Your task to perform on an android device: change notification settings in the gmail app Image 0: 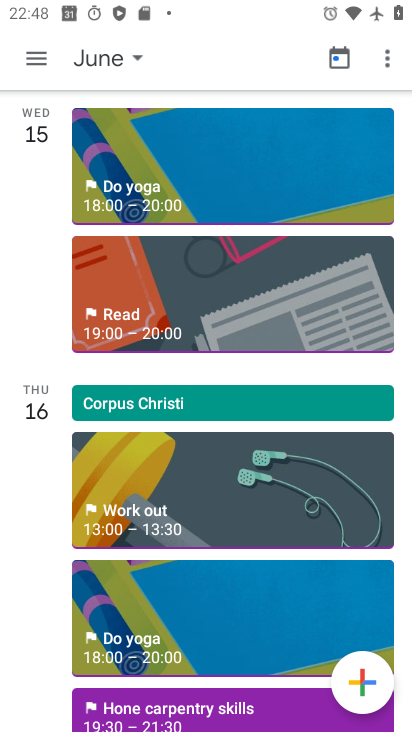
Step 0: press home button
Your task to perform on an android device: change notification settings in the gmail app Image 1: 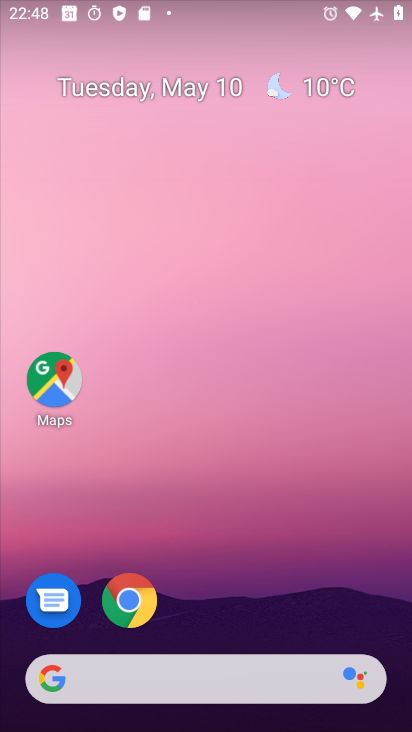
Step 1: drag from (313, 379) to (118, 24)
Your task to perform on an android device: change notification settings in the gmail app Image 2: 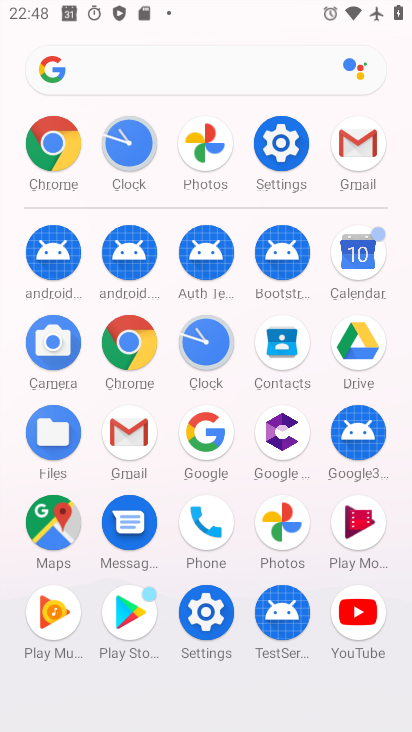
Step 2: drag from (254, 316) to (233, 99)
Your task to perform on an android device: change notification settings in the gmail app Image 3: 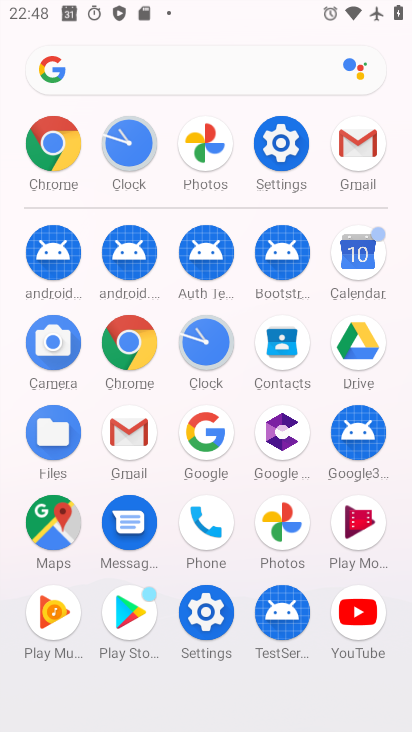
Step 3: click (354, 166)
Your task to perform on an android device: change notification settings in the gmail app Image 4: 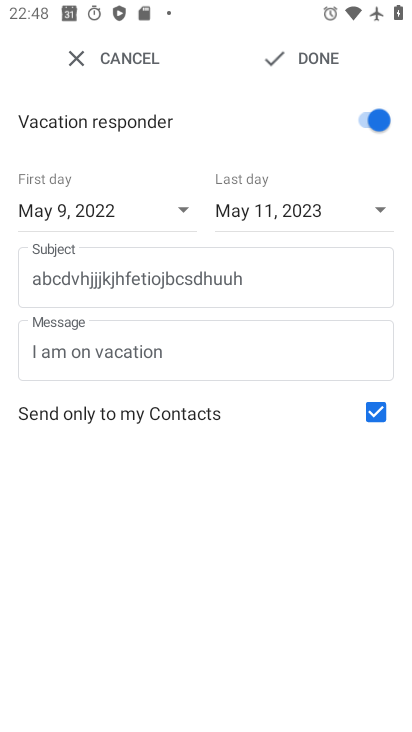
Step 4: click (67, 53)
Your task to perform on an android device: change notification settings in the gmail app Image 5: 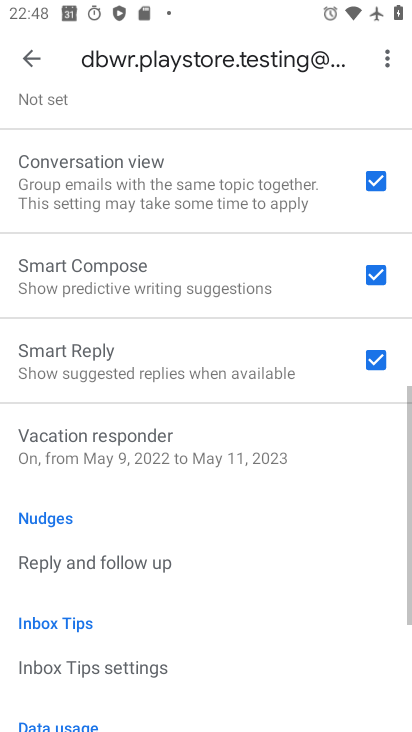
Step 5: drag from (81, 182) to (90, 676)
Your task to perform on an android device: change notification settings in the gmail app Image 6: 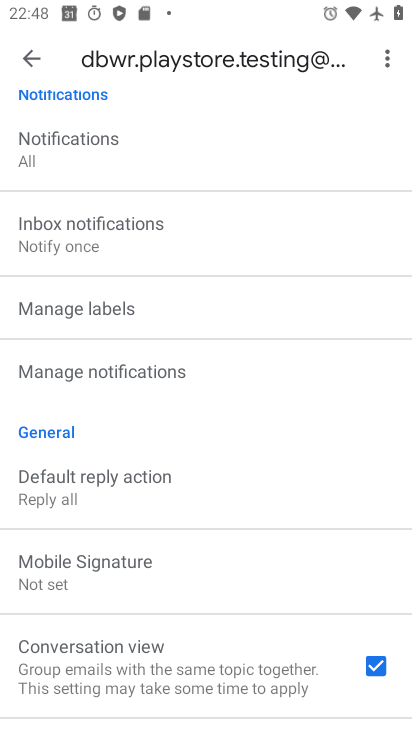
Step 6: click (116, 160)
Your task to perform on an android device: change notification settings in the gmail app Image 7: 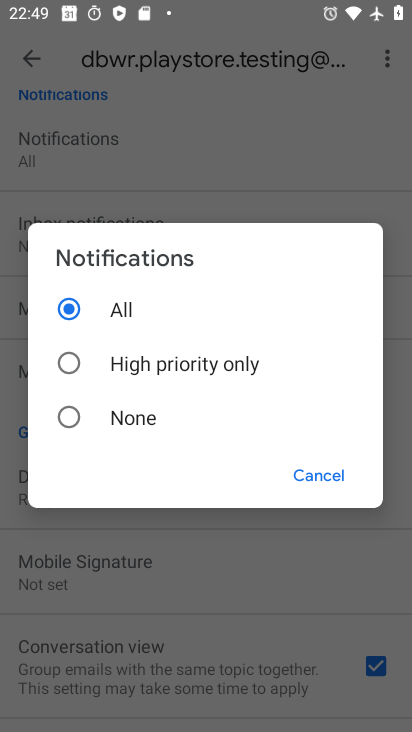
Step 7: click (144, 361)
Your task to perform on an android device: change notification settings in the gmail app Image 8: 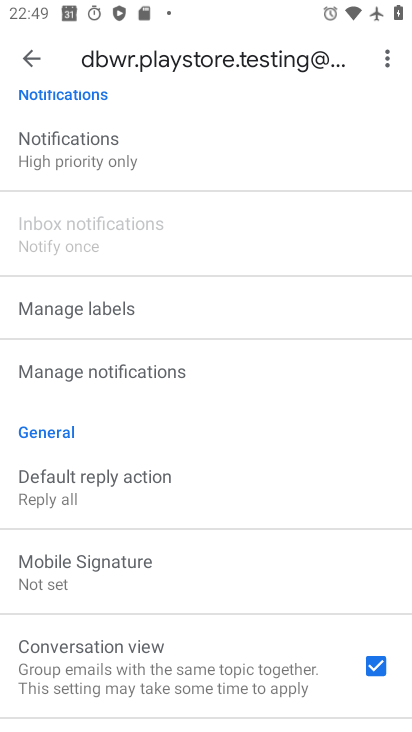
Step 8: task complete